Your task to perform on an android device: Turn on the flashlight Image 0: 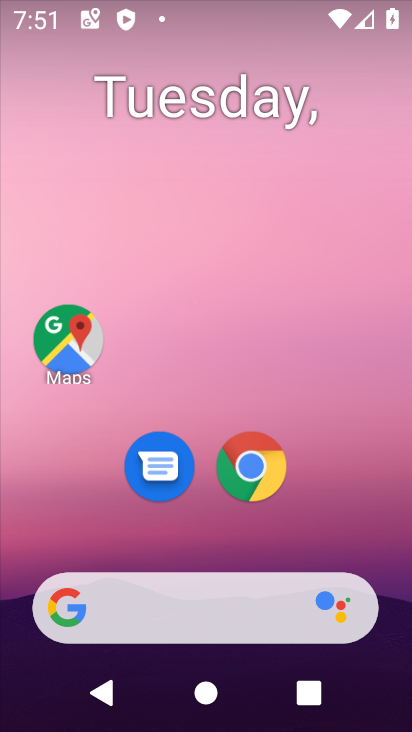
Step 0: press home button
Your task to perform on an android device: Turn on the flashlight Image 1: 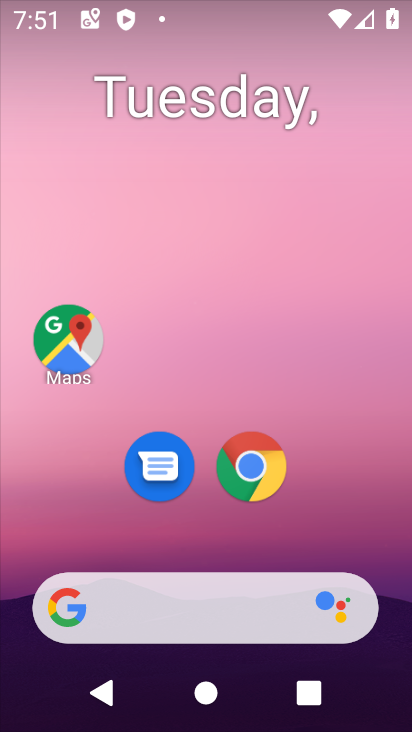
Step 1: drag from (199, 647) to (337, 187)
Your task to perform on an android device: Turn on the flashlight Image 2: 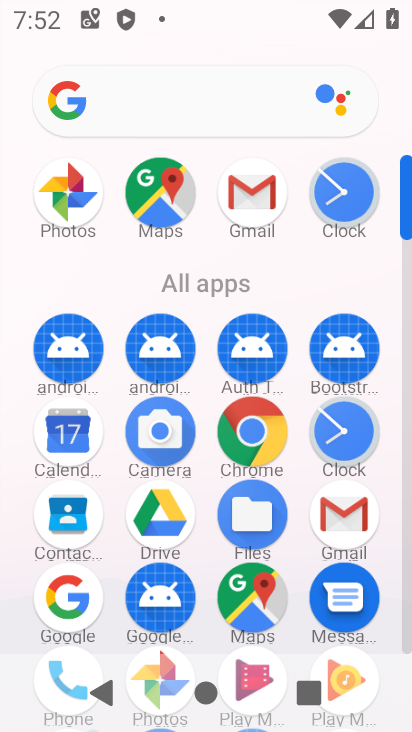
Step 2: drag from (107, 480) to (118, 243)
Your task to perform on an android device: Turn on the flashlight Image 3: 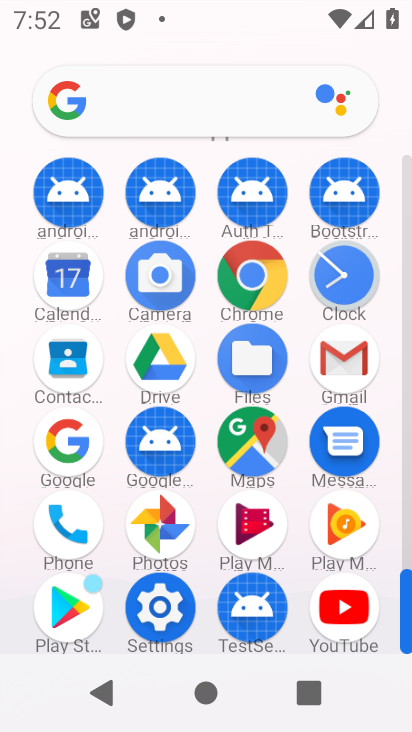
Step 3: click (164, 592)
Your task to perform on an android device: Turn on the flashlight Image 4: 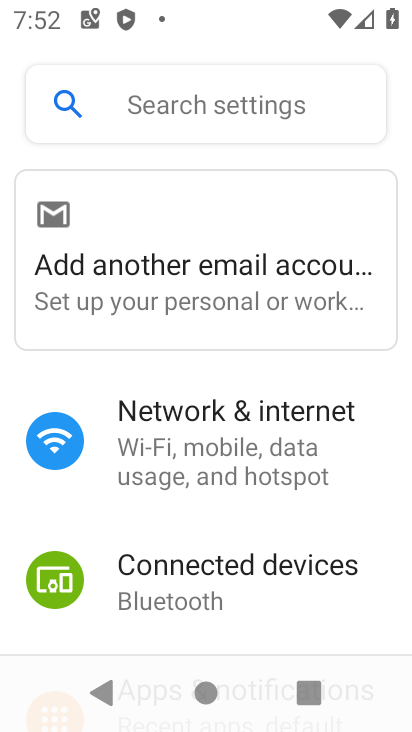
Step 4: click (183, 128)
Your task to perform on an android device: Turn on the flashlight Image 5: 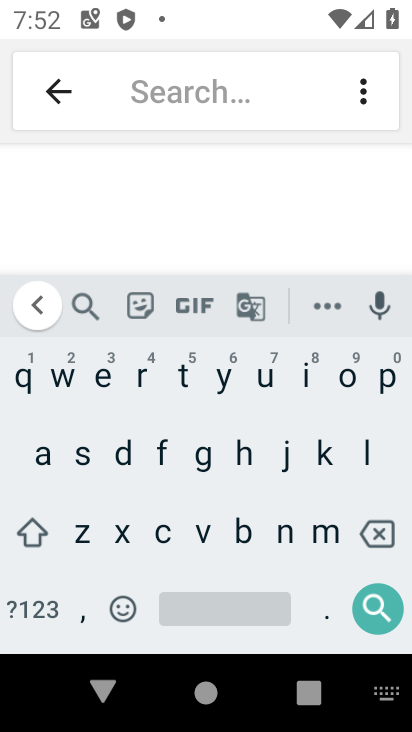
Step 5: click (169, 464)
Your task to perform on an android device: Turn on the flashlight Image 6: 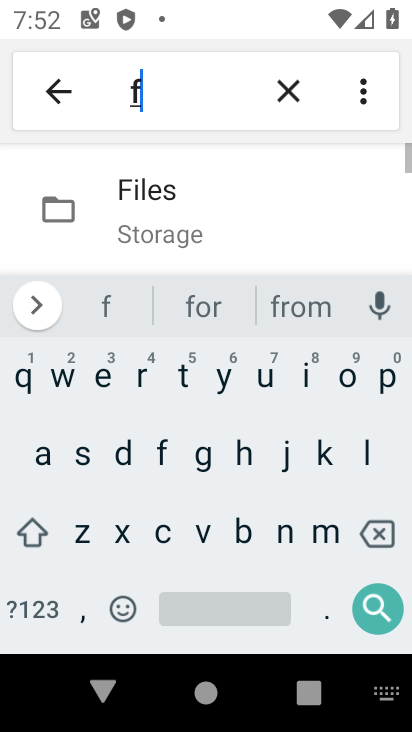
Step 6: click (372, 450)
Your task to perform on an android device: Turn on the flashlight Image 7: 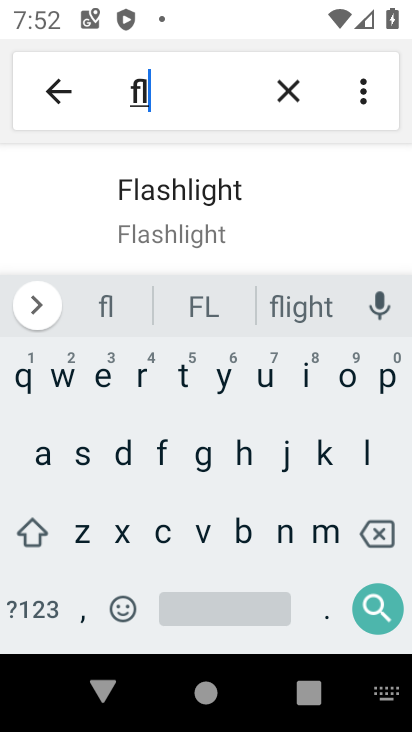
Step 7: click (178, 206)
Your task to perform on an android device: Turn on the flashlight Image 8: 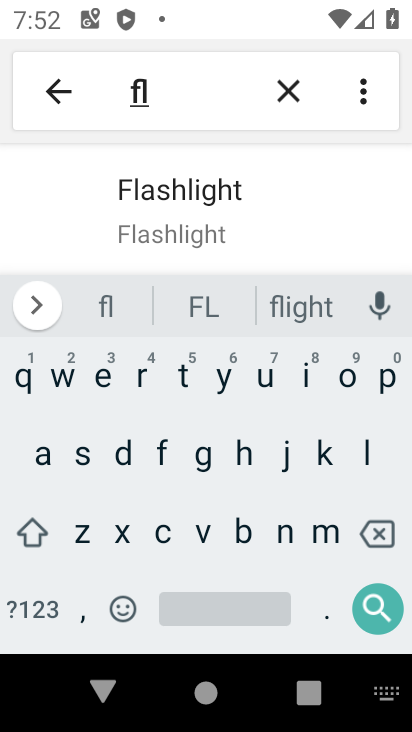
Step 8: click (177, 198)
Your task to perform on an android device: Turn on the flashlight Image 9: 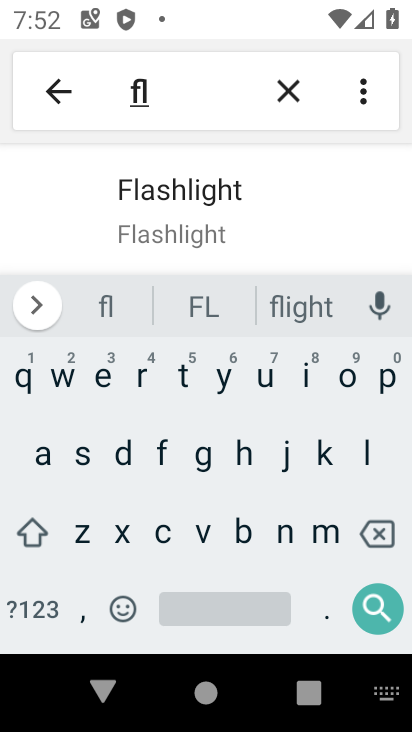
Step 9: task complete